Your task to perform on an android device: Open location settings Image 0: 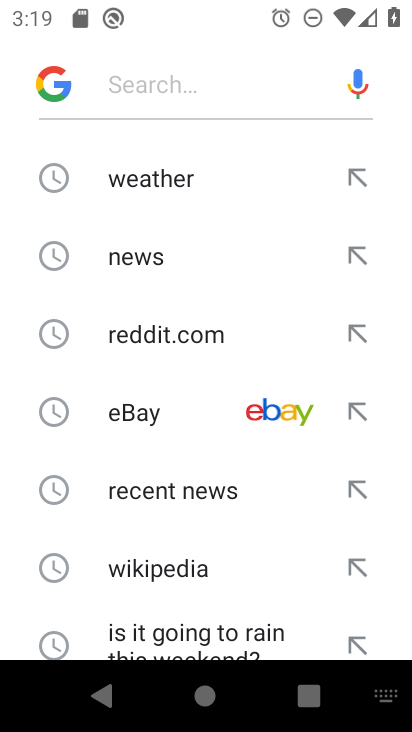
Step 0: press back button
Your task to perform on an android device: Open location settings Image 1: 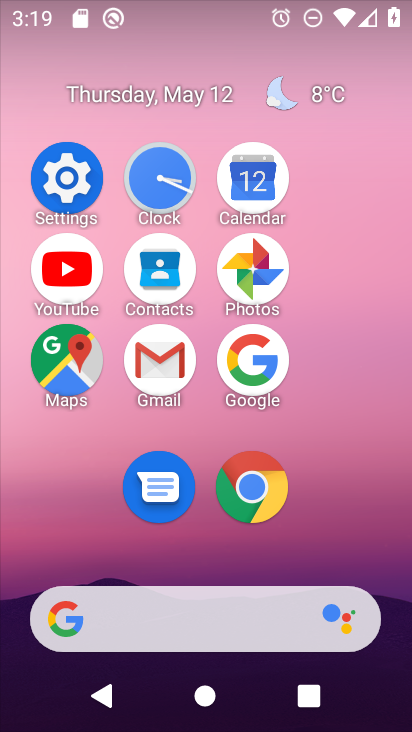
Step 1: click (84, 172)
Your task to perform on an android device: Open location settings Image 2: 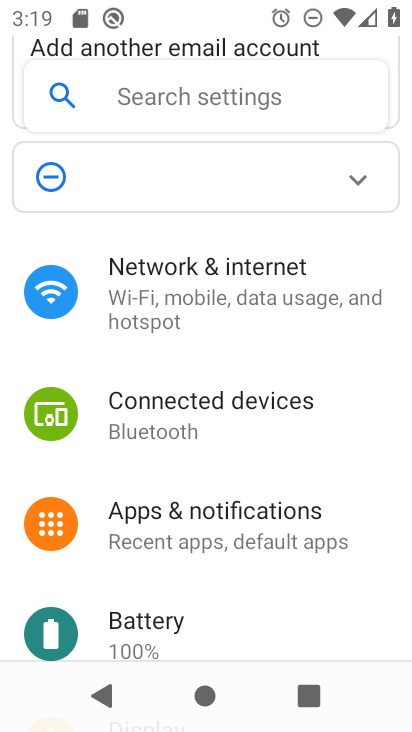
Step 2: drag from (277, 602) to (295, 213)
Your task to perform on an android device: Open location settings Image 3: 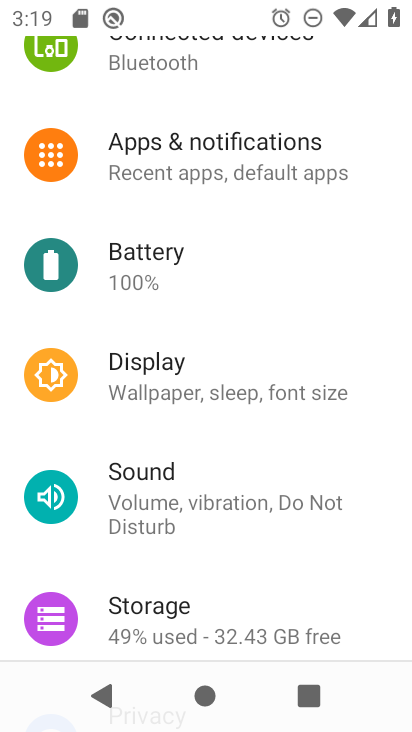
Step 3: drag from (256, 592) to (265, 209)
Your task to perform on an android device: Open location settings Image 4: 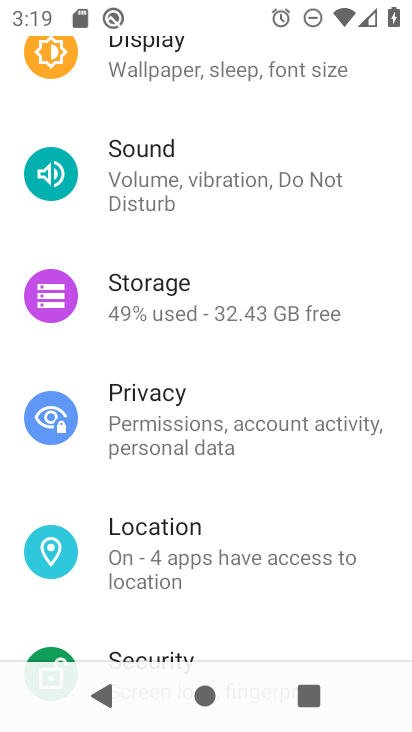
Step 4: click (235, 522)
Your task to perform on an android device: Open location settings Image 5: 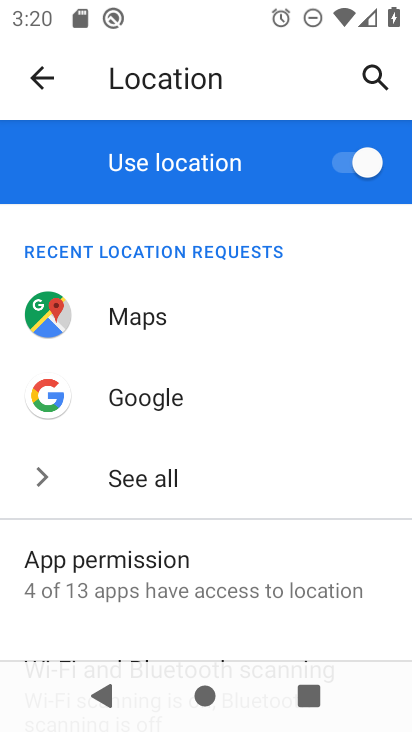
Step 5: task complete